Your task to perform on an android device: toggle sleep mode Image 0: 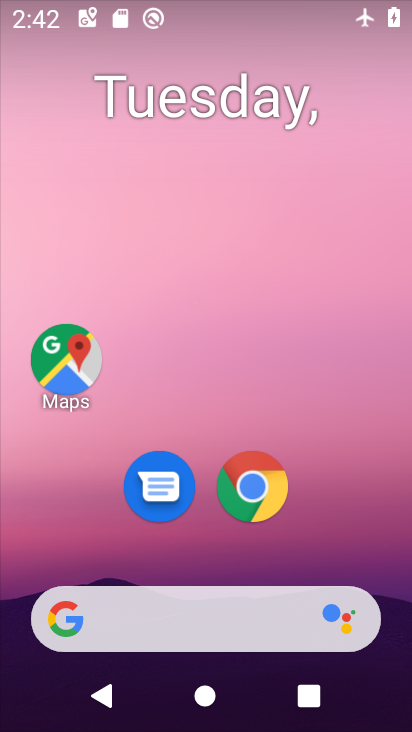
Step 0: drag from (211, 566) to (247, 74)
Your task to perform on an android device: toggle sleep mode Image 1: 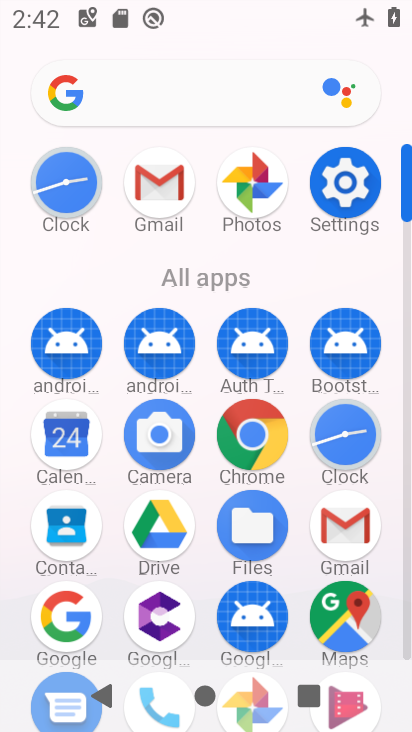
Step 1: click (345, 176)
Your task to perform on an android device: toggle sleep mode Image 2: 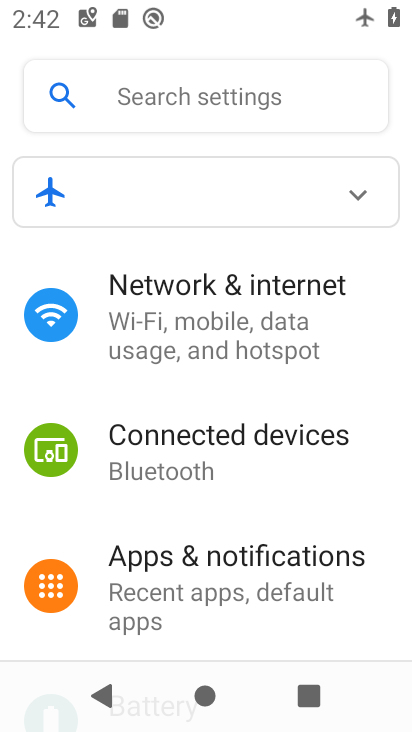
Step 2: drag from (227, 631) to (223, 159)
Your task to perform on an android device: toggle sleep mode Image 3: 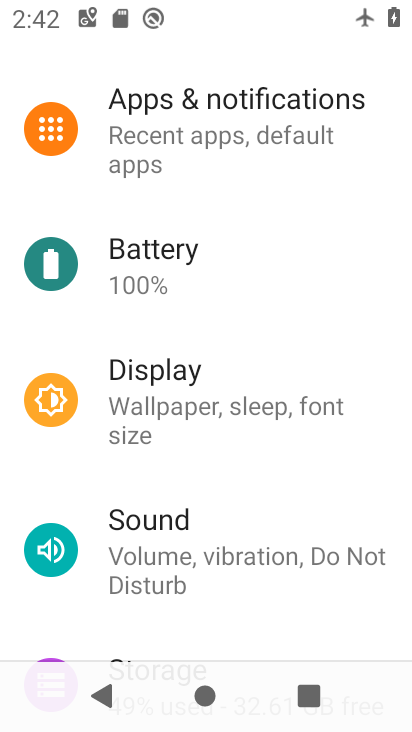
Step 3: click (211, 372)
Your task to perform on an android device: toggle sleep mode Image 4: 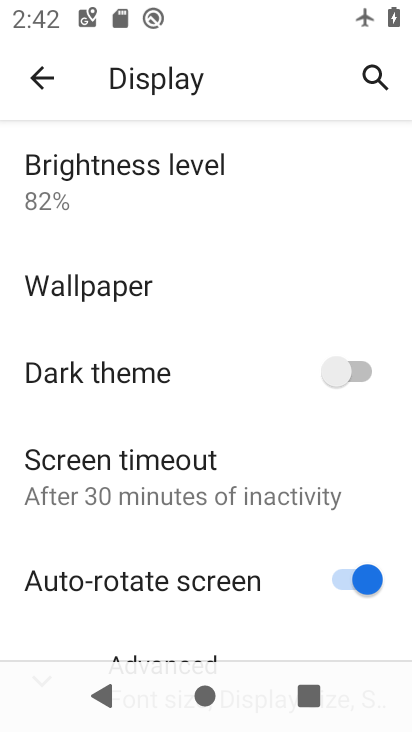
Step 4: drag from (223, 620) to (235, 167)
Your task to perform on an android device: toggle sleep mode Image 5: 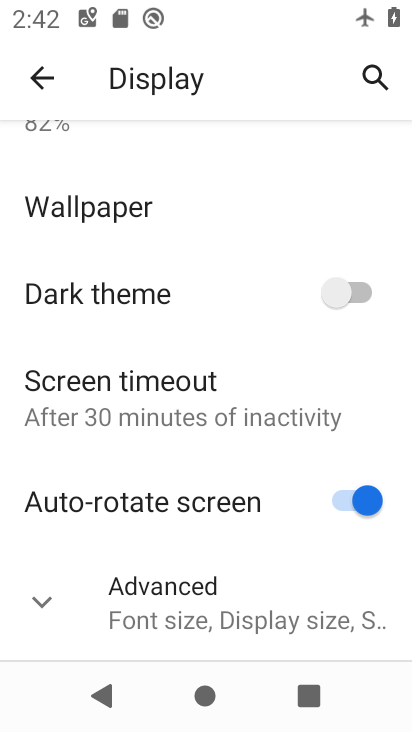
Step 5: click (39, 590)
Your task to perform on an android device: toggle sleep mode Image 6: 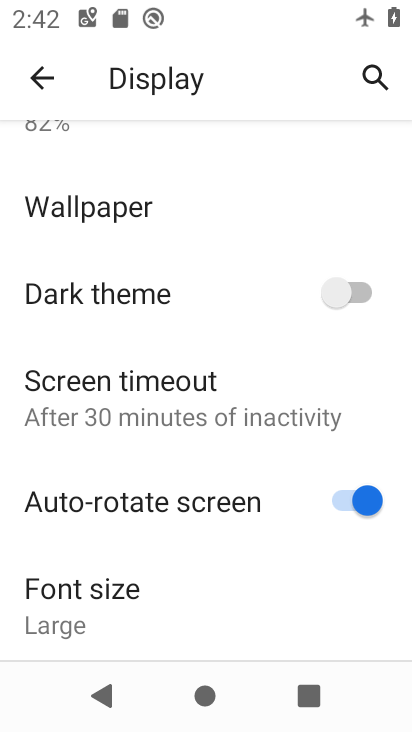
Step 6: task complete